Your task to perform on an android device: star an email in the gmail app Image 0: 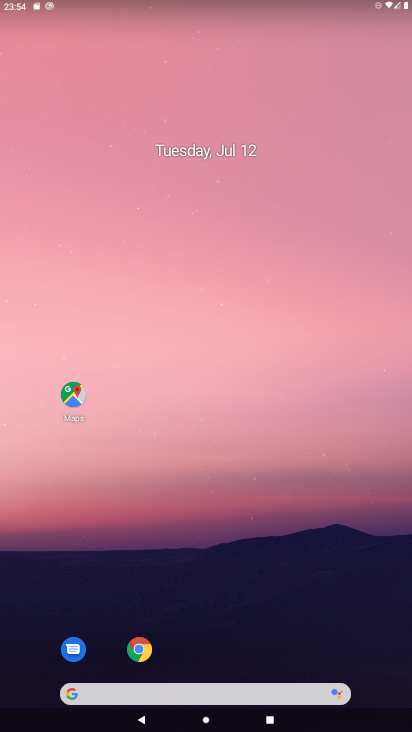
Step 0: drag from (385, 663) to (346, 134)
Your task to perform on an android device: star an email in the gmail app Image 1: 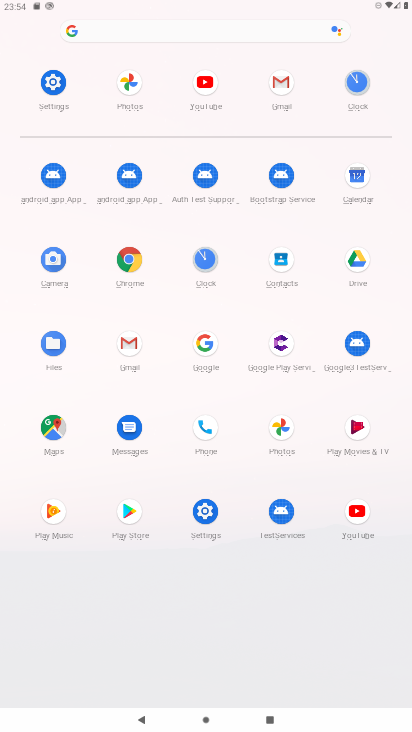
Step 1: click (128, 344)
Your task to perform on an android device: star an email in the gmail app Image 2: 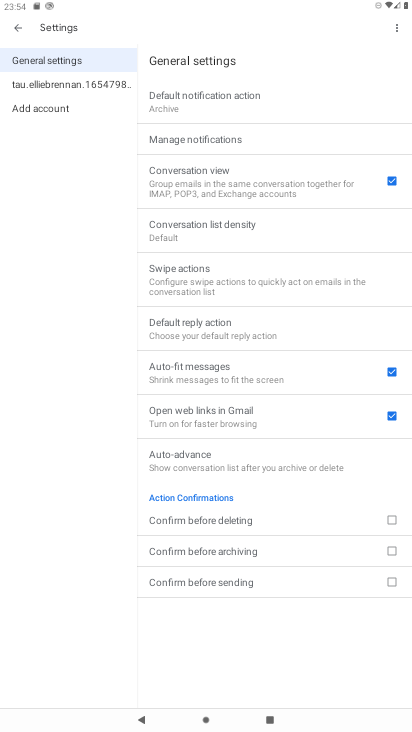
Step 2: press back button
Your task to perform on an android device: star an email in the gmail app Image 3: 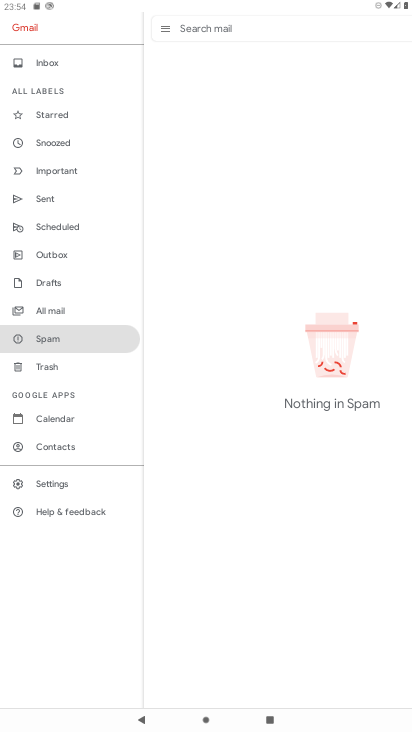
Step 3: click (47, 306)
Your task to perform on an android device: star an email in the gmail app Image 4: 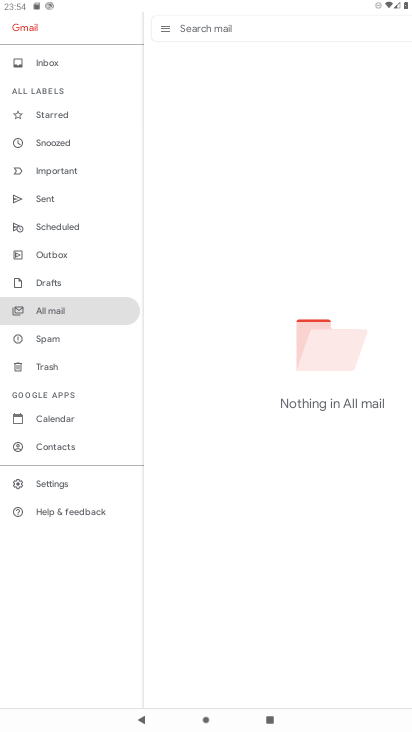
Step 4: task complete